Your task to perform on an android device: clear history in the chrome app Image 0: 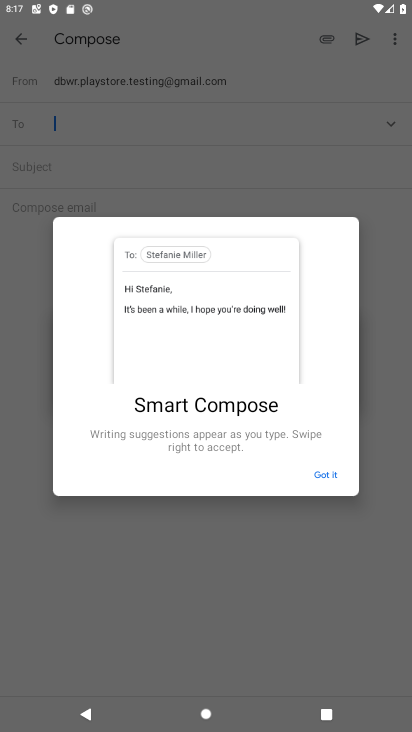
Step 0: press home button
Your task to perform on an android device: clear history in the chrome app Image 1: 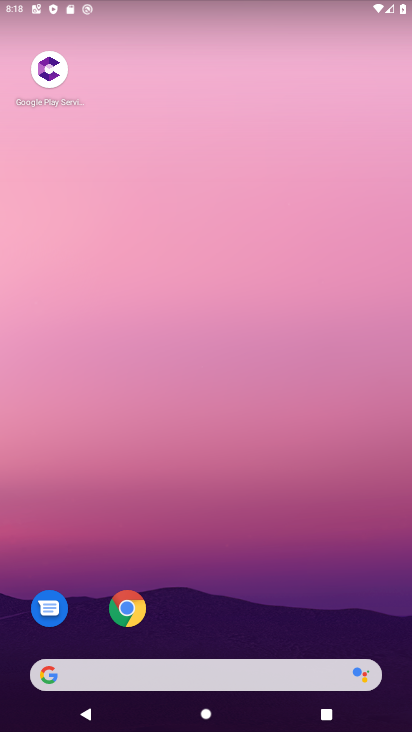
Step 1: click (122, 620)
Your task to perform on an android device: clear history in the chrome app Image 2: 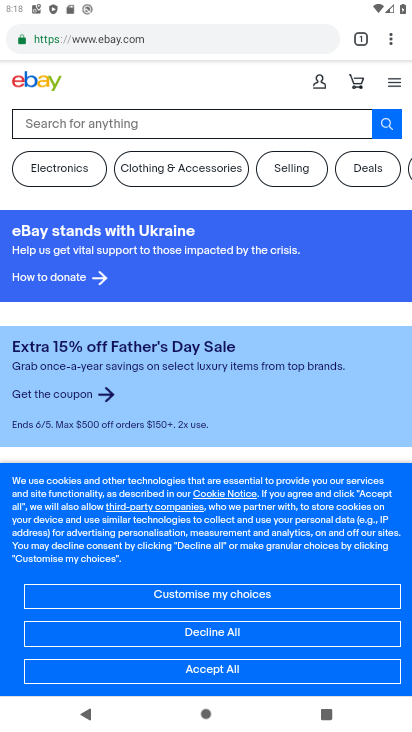
Step 2: click (388, 36)
Your task to perform on an android device: clear history in the chrome app Image 3: 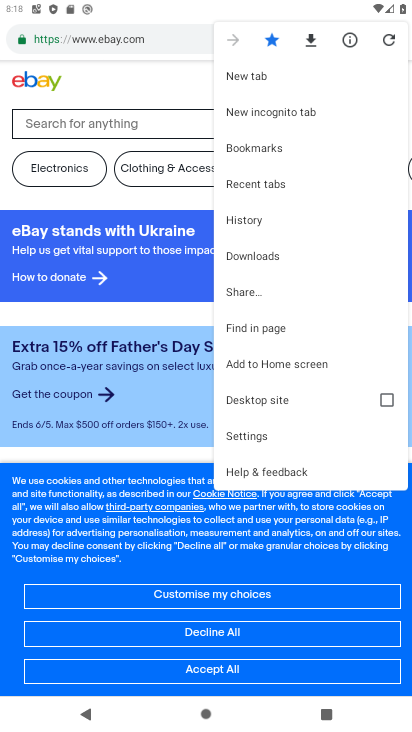
Step 3: click (250, 220)
Your task to perform on an android device: clear history in the chrome app Image 4: 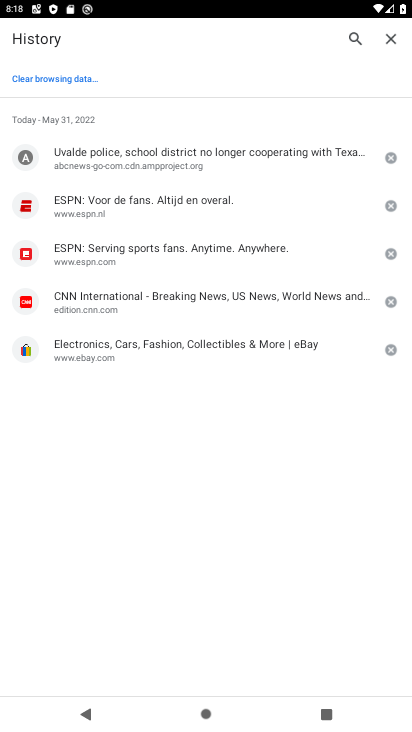
Step 4: click (67, 78)
Your task to perform on an android device: clear history in the chrome app Image 5: 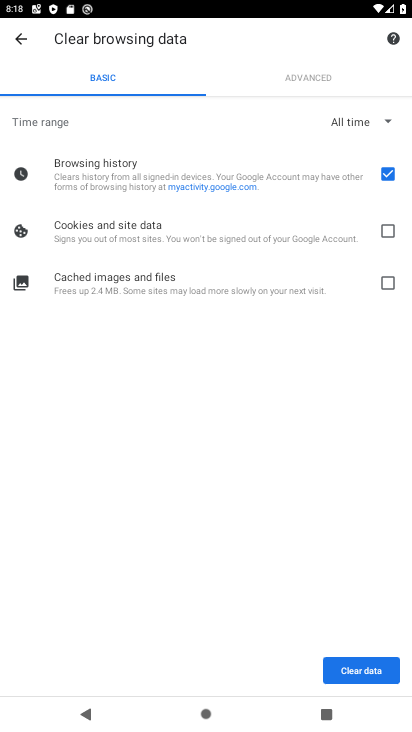
Step 5: click (365, 658)
Your task to perform on an android device: clear history in the chrome app Image 6: 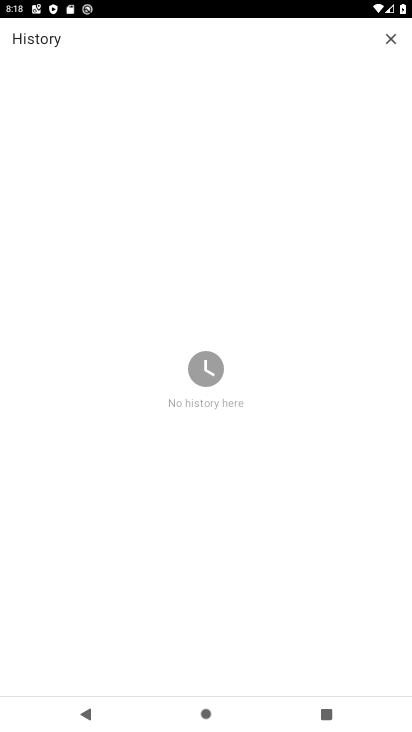
Step 6: task complete